Your task to perform on an android device: change alarm snooze length Image 0: 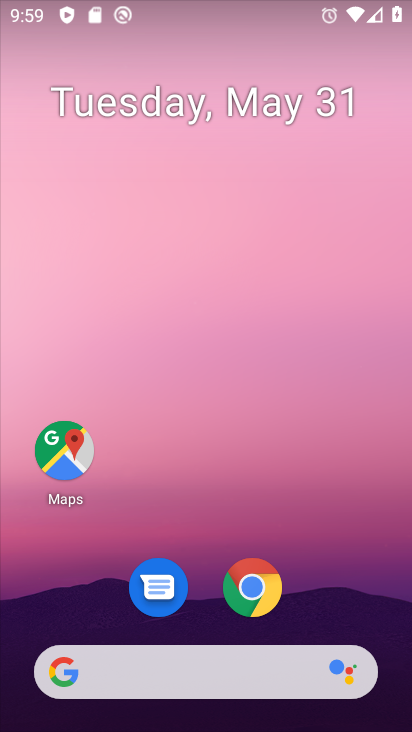
Step 0: drag from (372, 620) to (373, 309)
Your task to perform on an android device: change alarm snooze length Image 1: 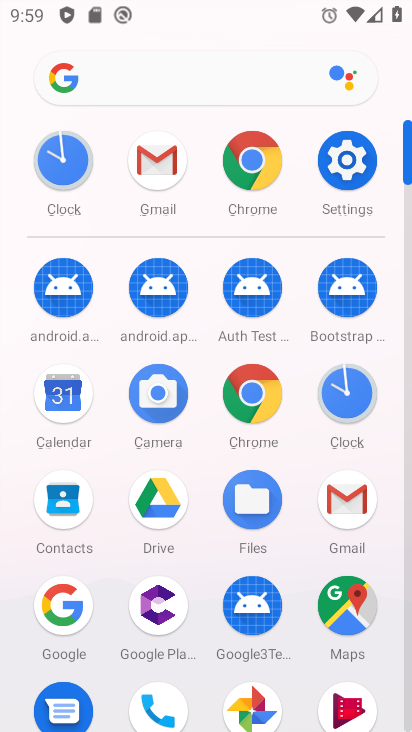
Step 1: click (349, 391)
Your task to perform on an android device: change alarm snooze length Image 2: 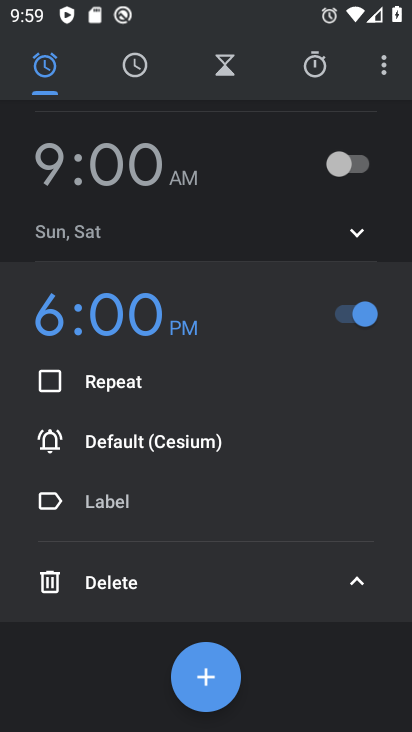
Step 2: click (386, 75)
Your task to perform on an android device: change alarm snooze length Image 3: 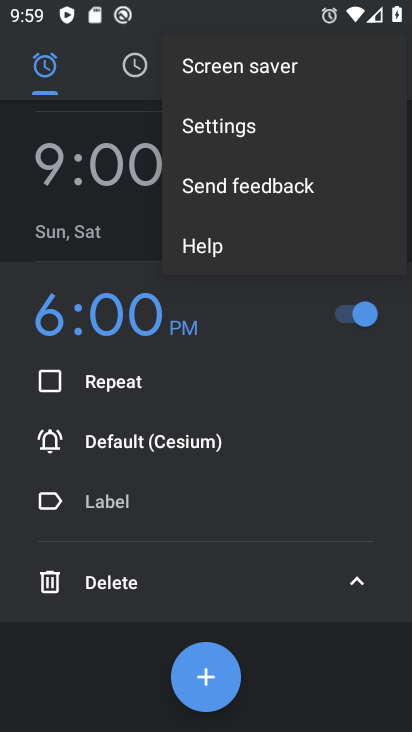
Step 3: click (272, 131)
Your task to perform on an android device: change alarm snooze length Image 4: 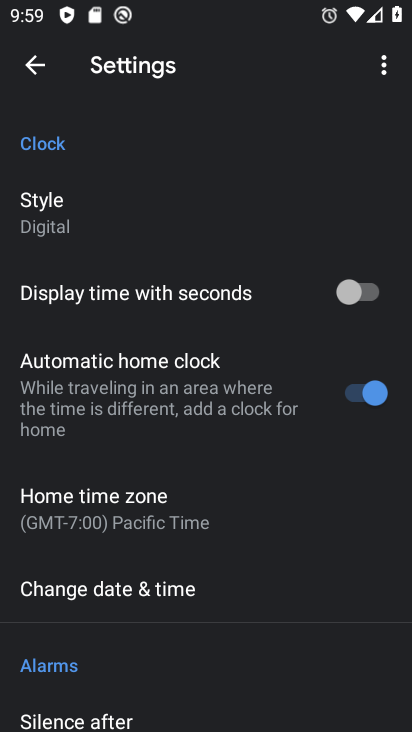
Step 4: drag from (299, 486) to (317, 394)
Your task to perform on an android device: change alarm snooze length Image 5: 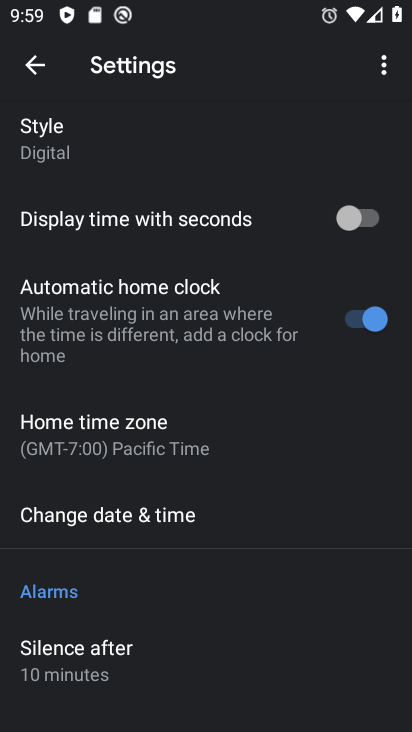
Step 5: drag from (300, 494) to (311, 412)
Your task to perform on an android device: change alarm snooze length Image 6: 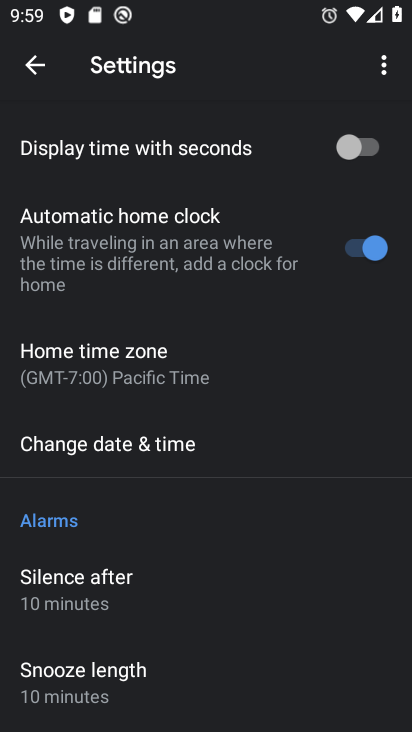
Step 6: drag from (296, 457) to (291, 383)
Your task to perform on an android device: change alarm snooze length Image 7: 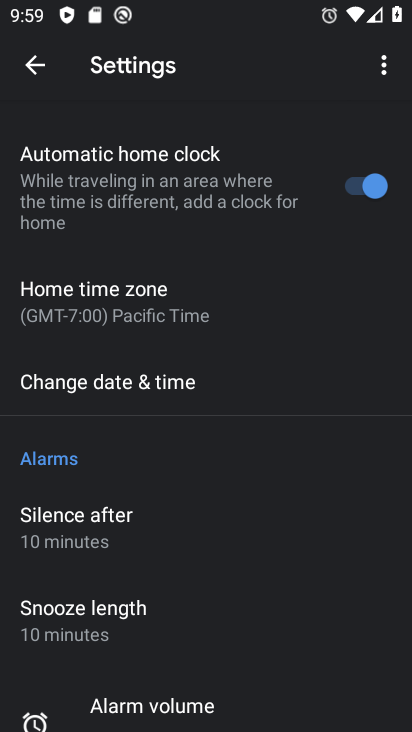
Step 7: drag from (284, 487) to (316, 389)
Your task to perform on an android device: change alarm snooze length Image 8: 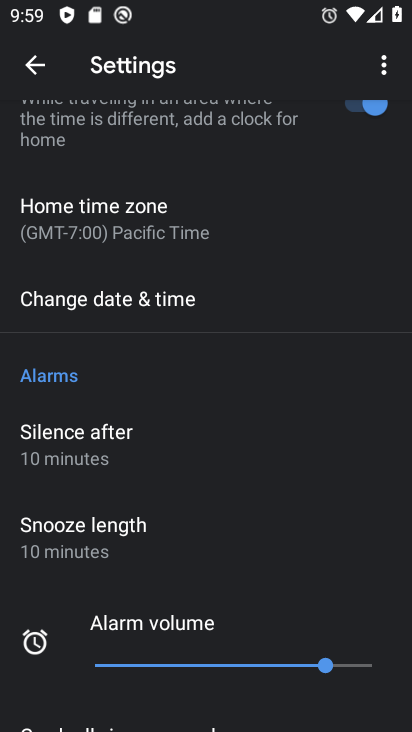
Step 8: drag from (331, 471) to (364, 342)
Your task to perform on an android device: change alarm snooze length Image 9: 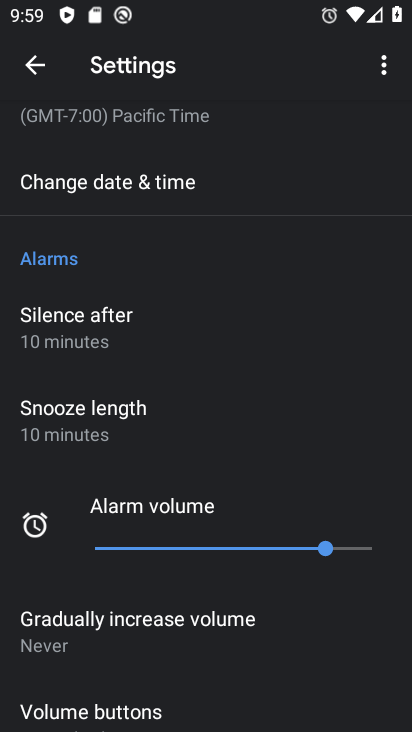
Step 9: drag from (340, 460) to (341, 362)
Your task to perform on an android device: change alarm snooze length Image 10: 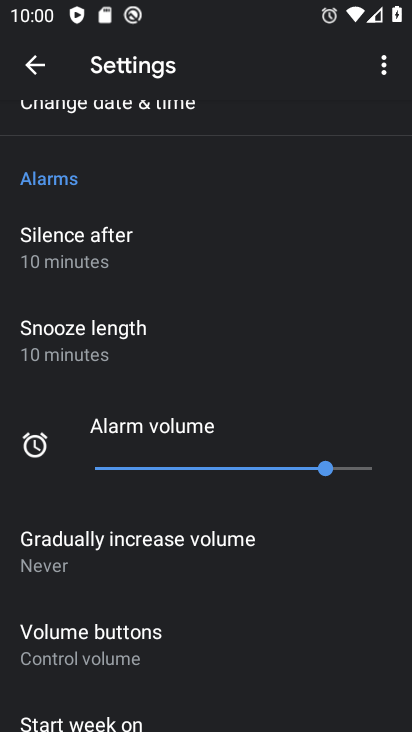
Step 10: click (105, 345)
Your task to perform on an android device: change alarm snooze length Image 11: 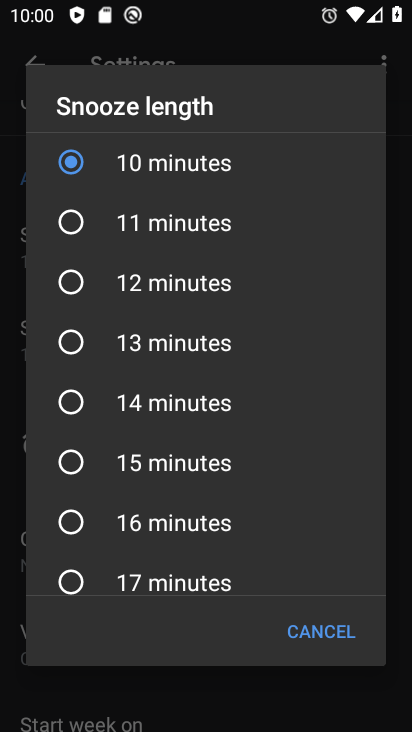
Step 11: click (194, 417)
Your task to perform on an android device: change alarm snooze length Image 12: 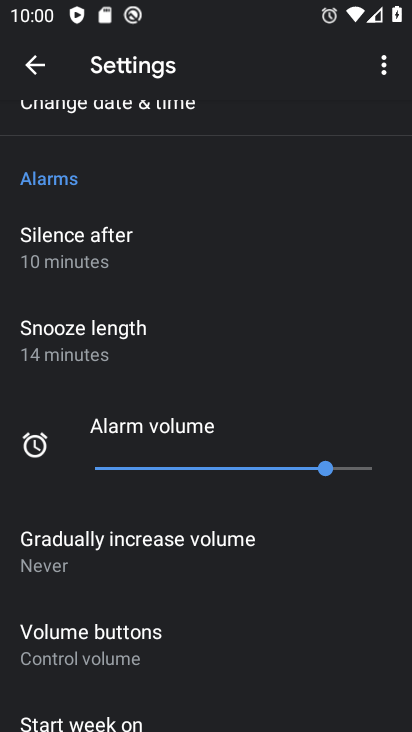
Step 12: task complete